Your task to perform on an android device: Open sound settings Image 0: 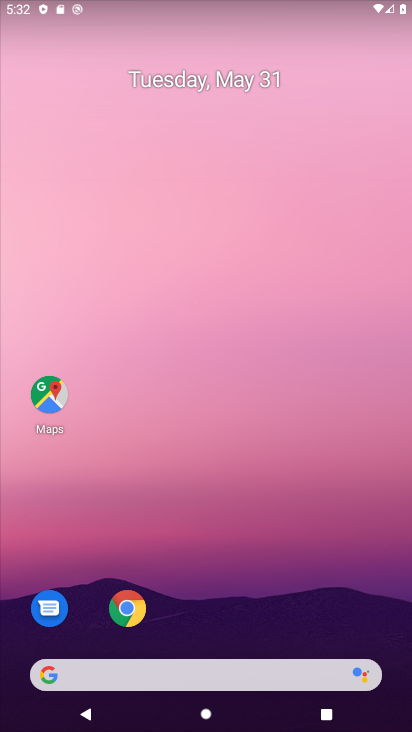
Step 0: drag from (194, 677) to (186, 269)
Your task to perform on an android device: Open sound settings Image 1: 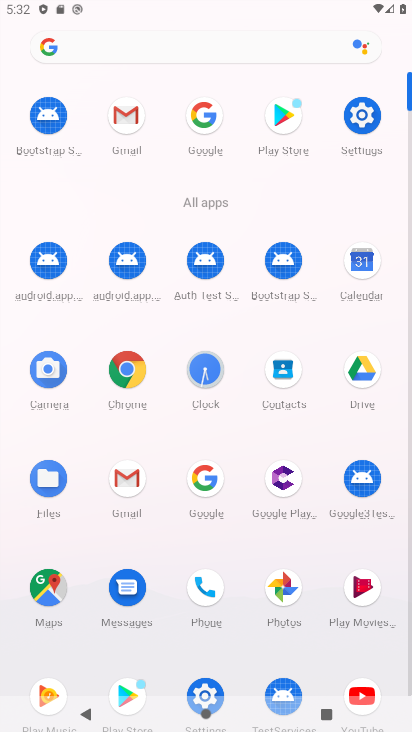
Step 1: click (354, 117)
Your task to perform on an android device: Open sound settings Image 2: 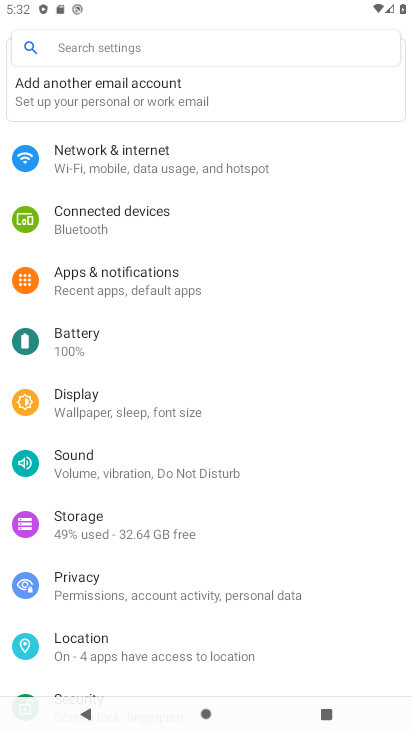
Step 2: click (107, 445)
Your task to perform on an android device: Open sound settings Image 3: 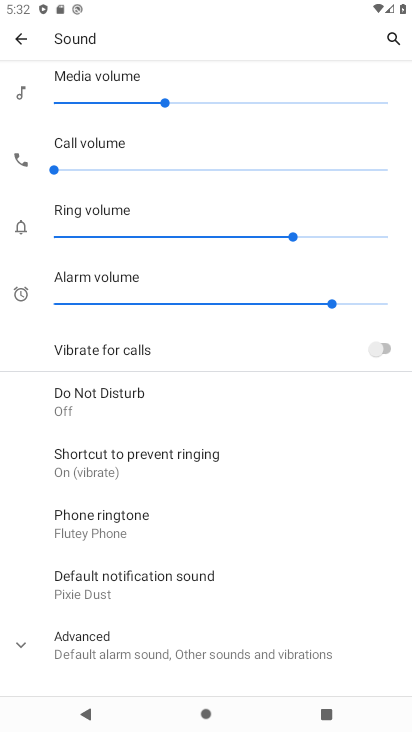
Step 3: task complete